Your task to perform on an android device: clear history in the chrome app Image 0: 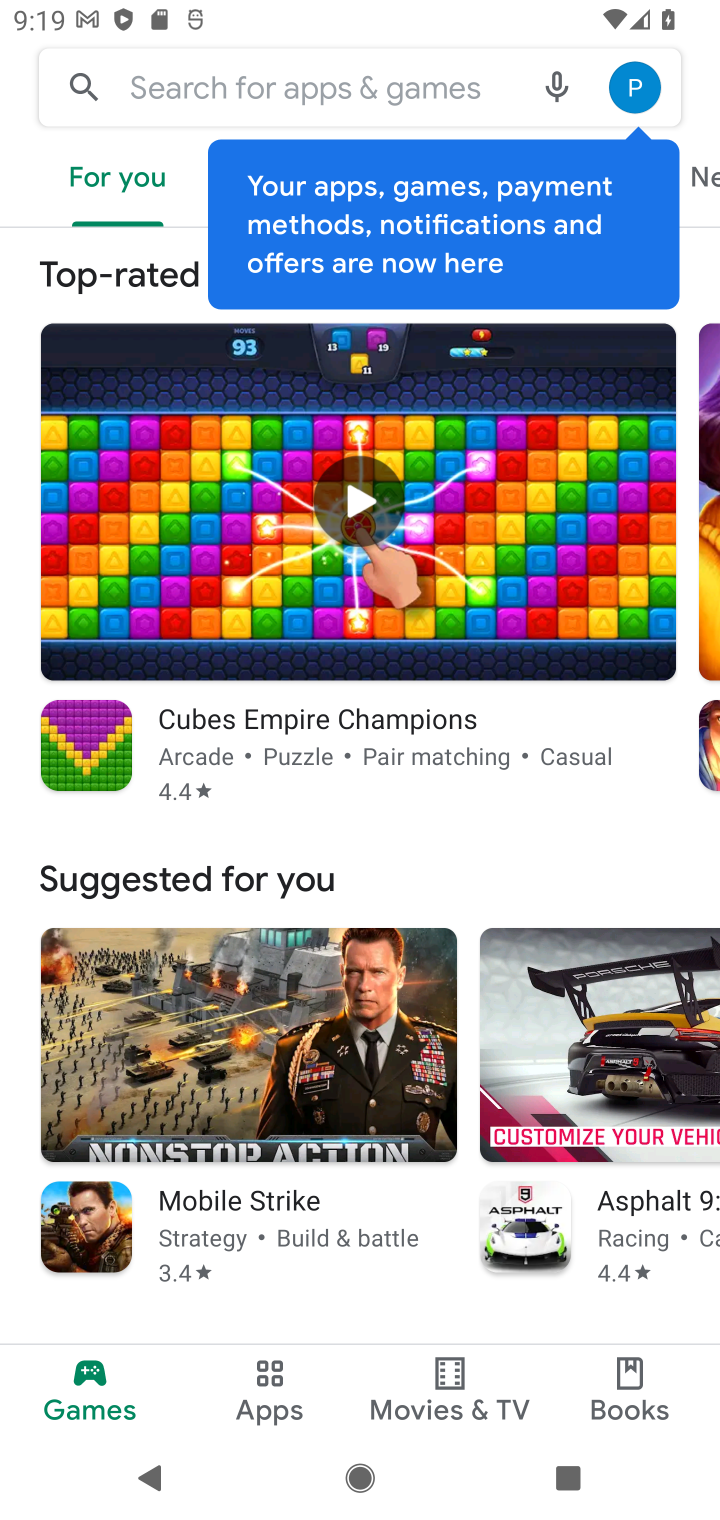
Step 0: press home button
Your task to perform on an android device: clear history in the chrome app Image 1: 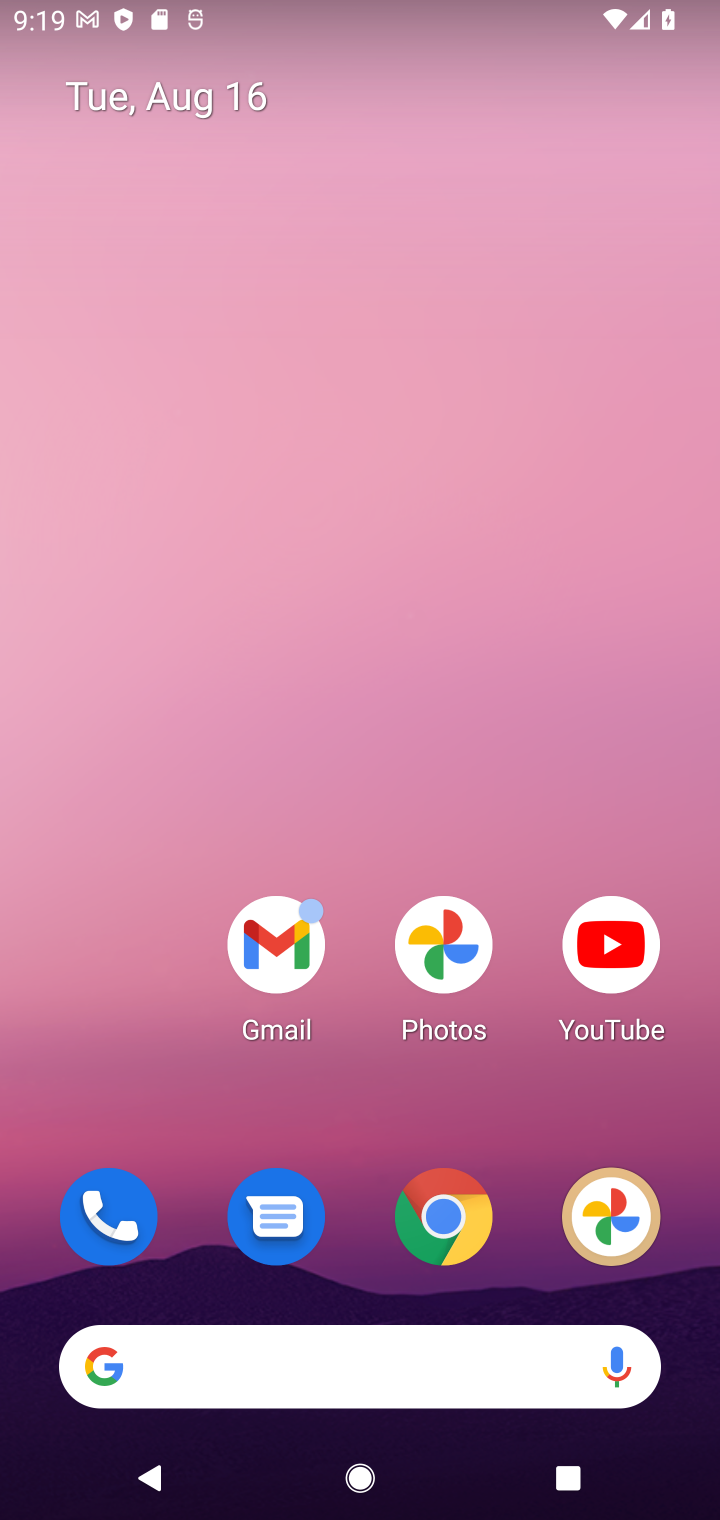
Step 1: click (452, 1217)
Your task to perform on an android device: clear history in the chrome app Image 2: 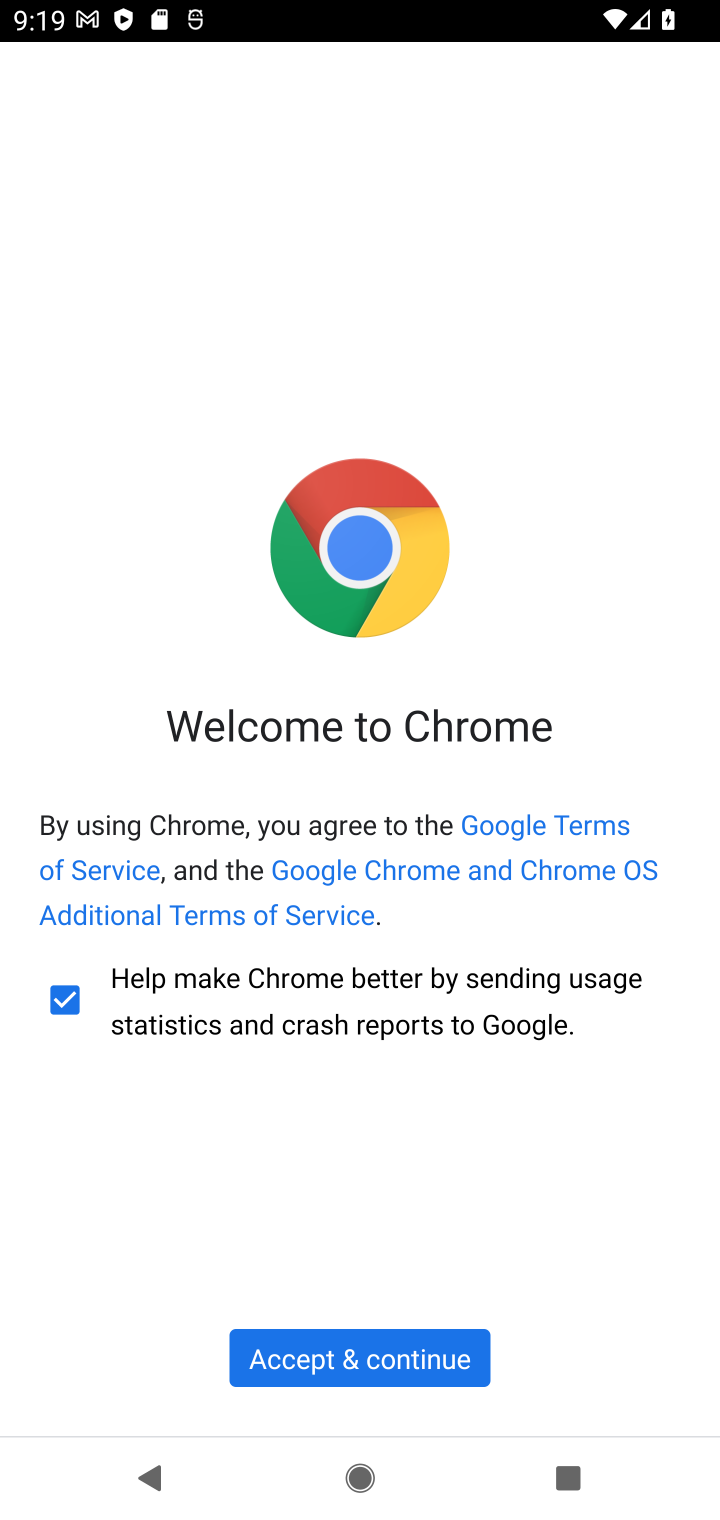
Step 2: click (387, 1368)
Your task to perform on an android device: clear history in the chrome app Image 3: 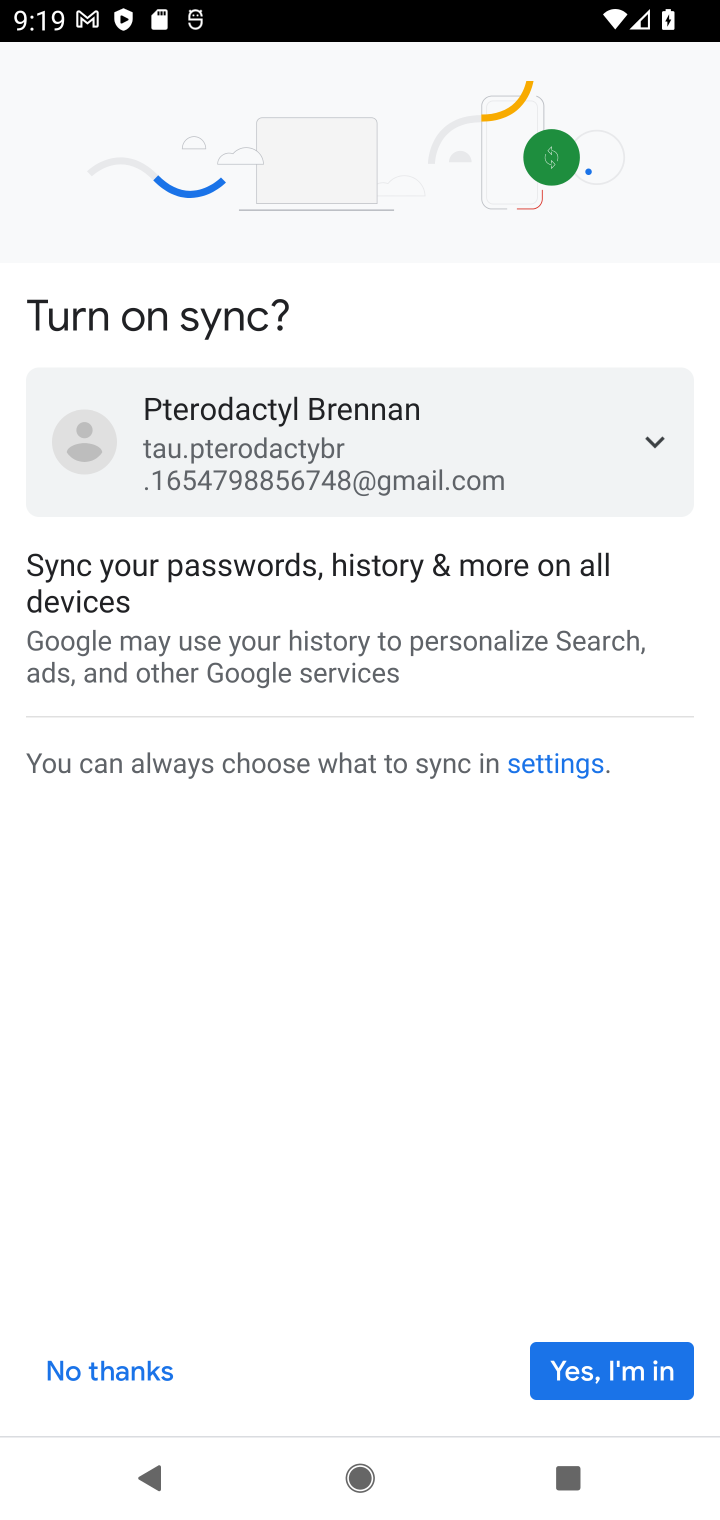
Step 3: click (578, 1362)
Your task to perform on an android device: clear history in the chrome app Image 4: 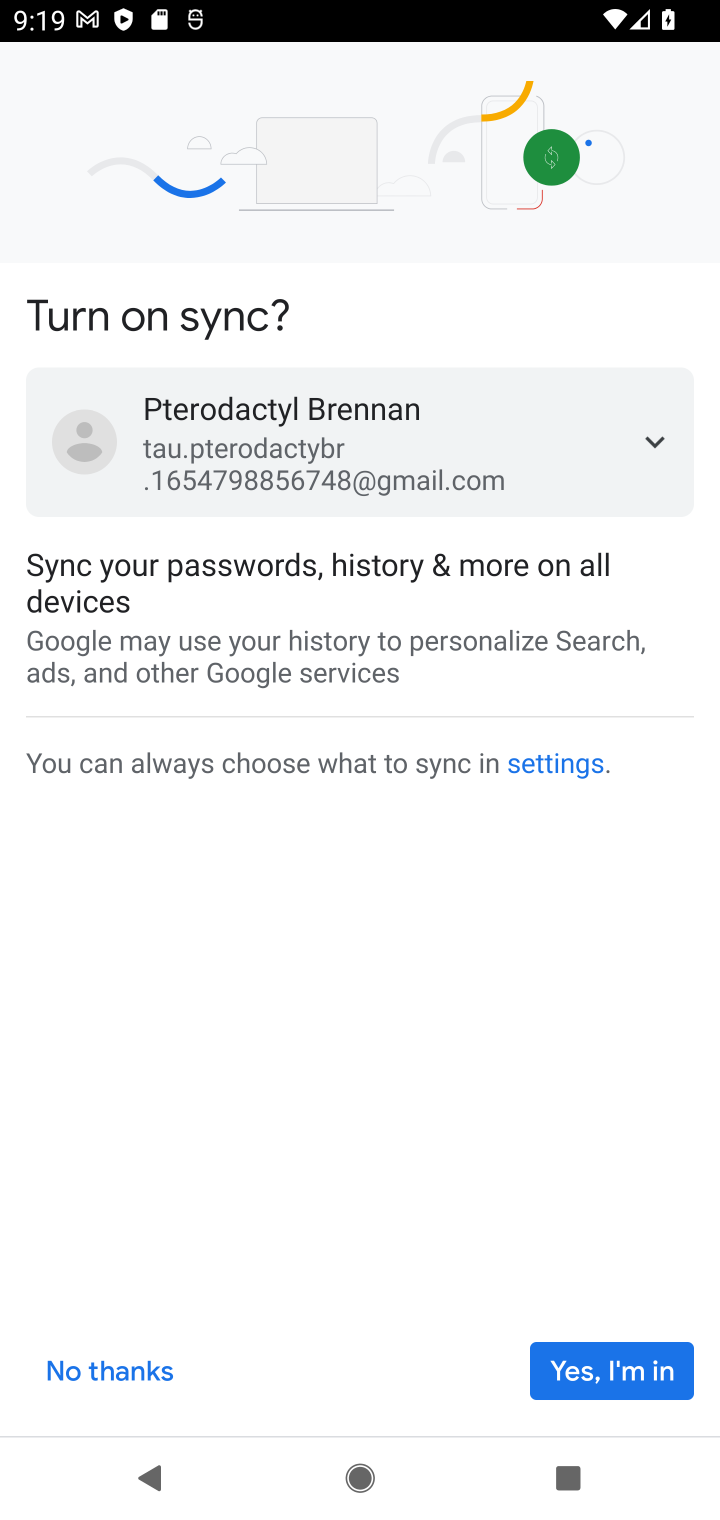
Step 4: click (617, 1375)
Your task to perform on an android device: clear history in the chrome app Image 5: 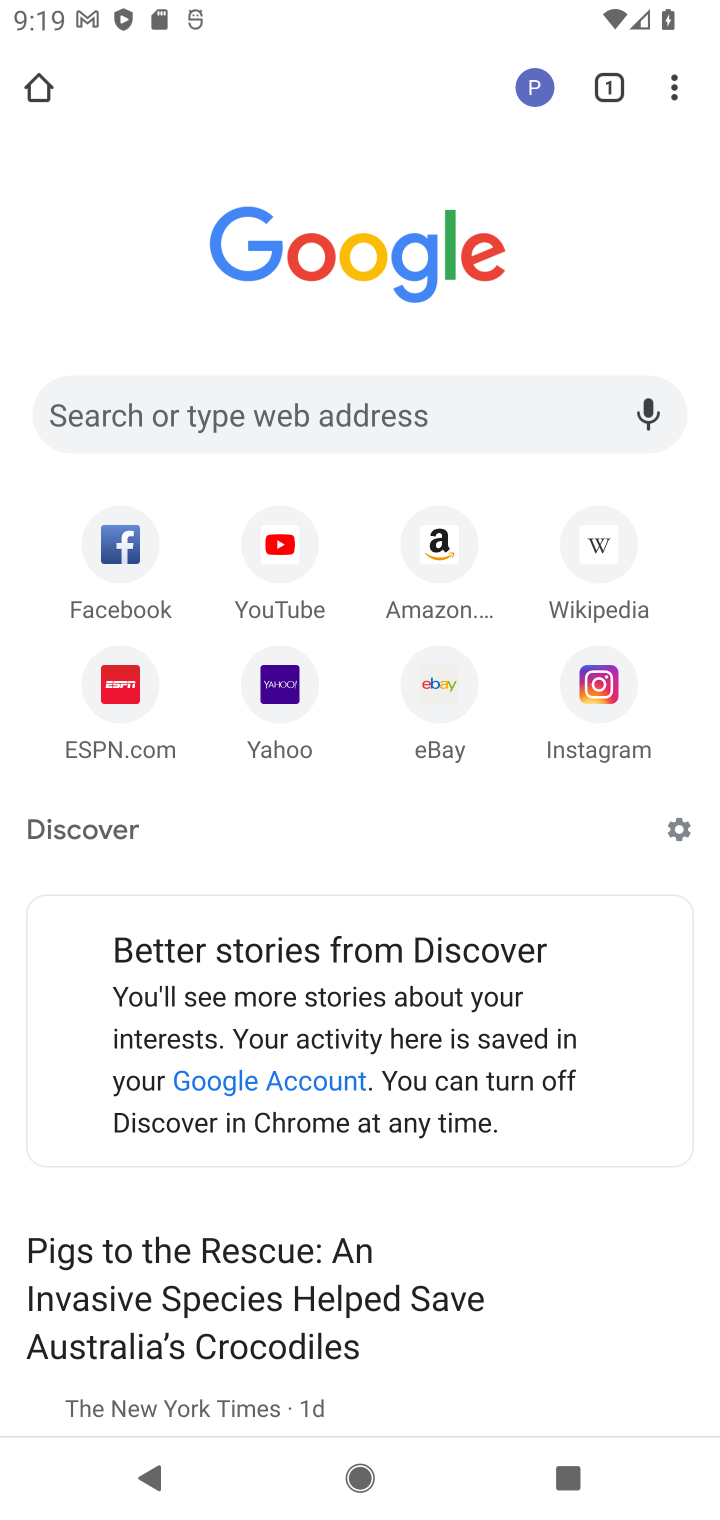
Step 5: click (677, 101)
Your task to perform on an android device: clear history in the chrome app Image 6: 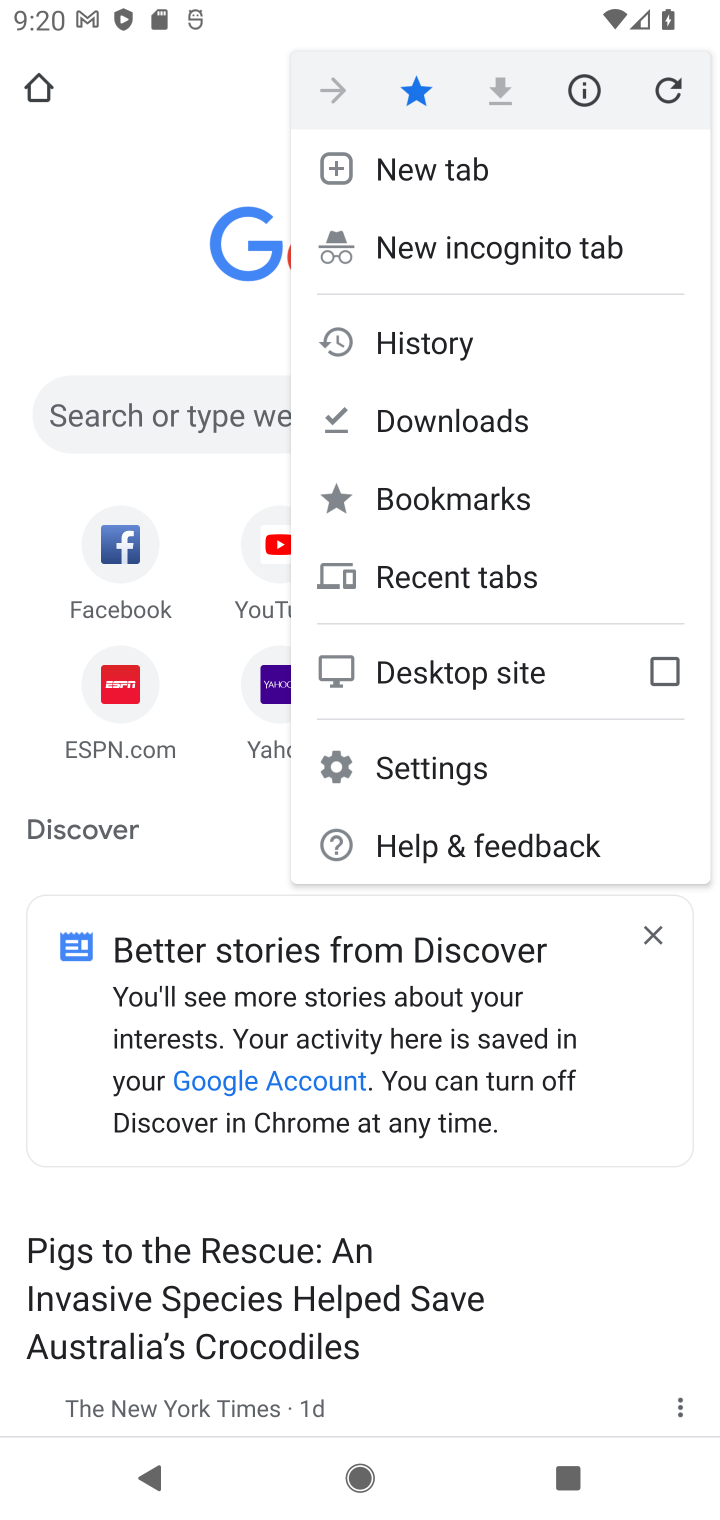
Step 6: click (422, 336)
Your task to perform on an android device: clear history in the chrome app Image 7: 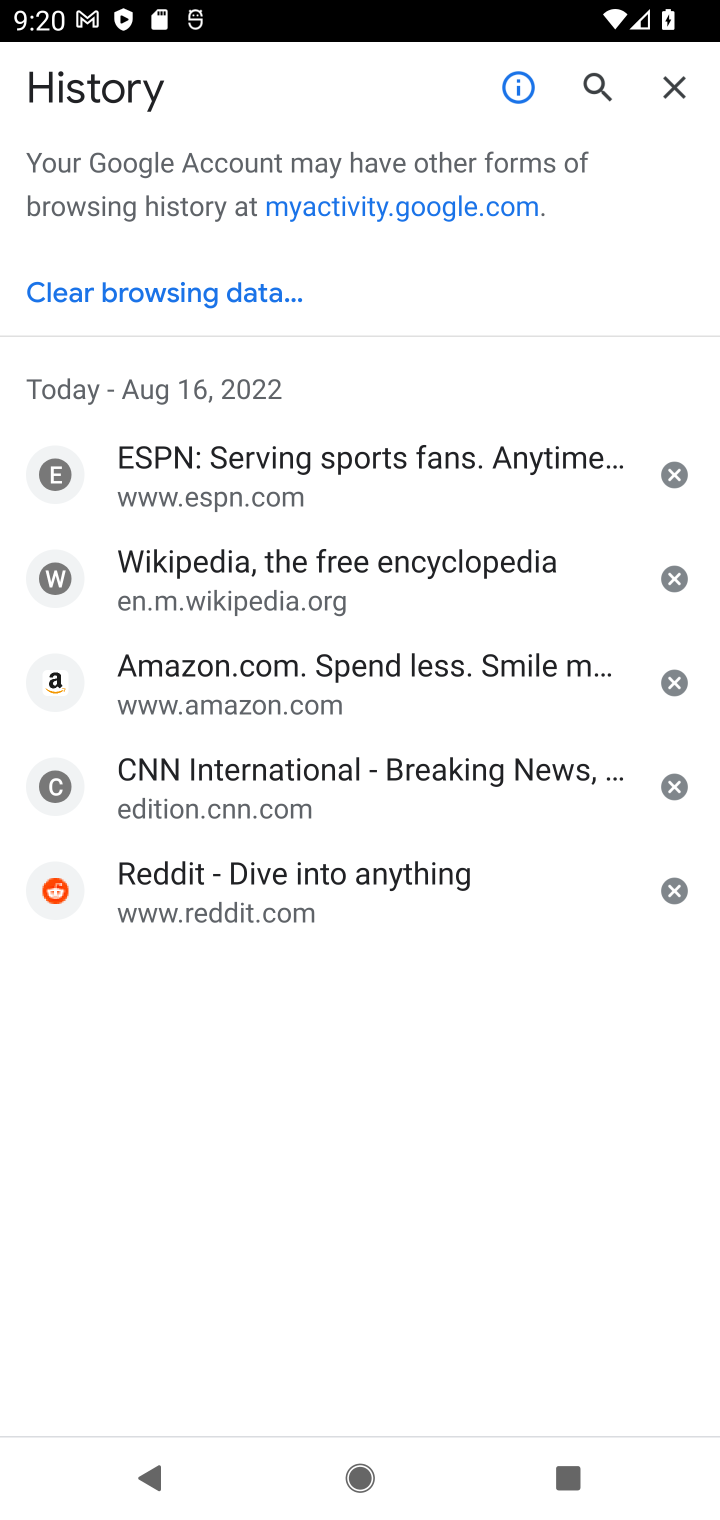
Step 7: click (193, 288)
Your task to perform on an android device: clear history in the chrome app Image 8: 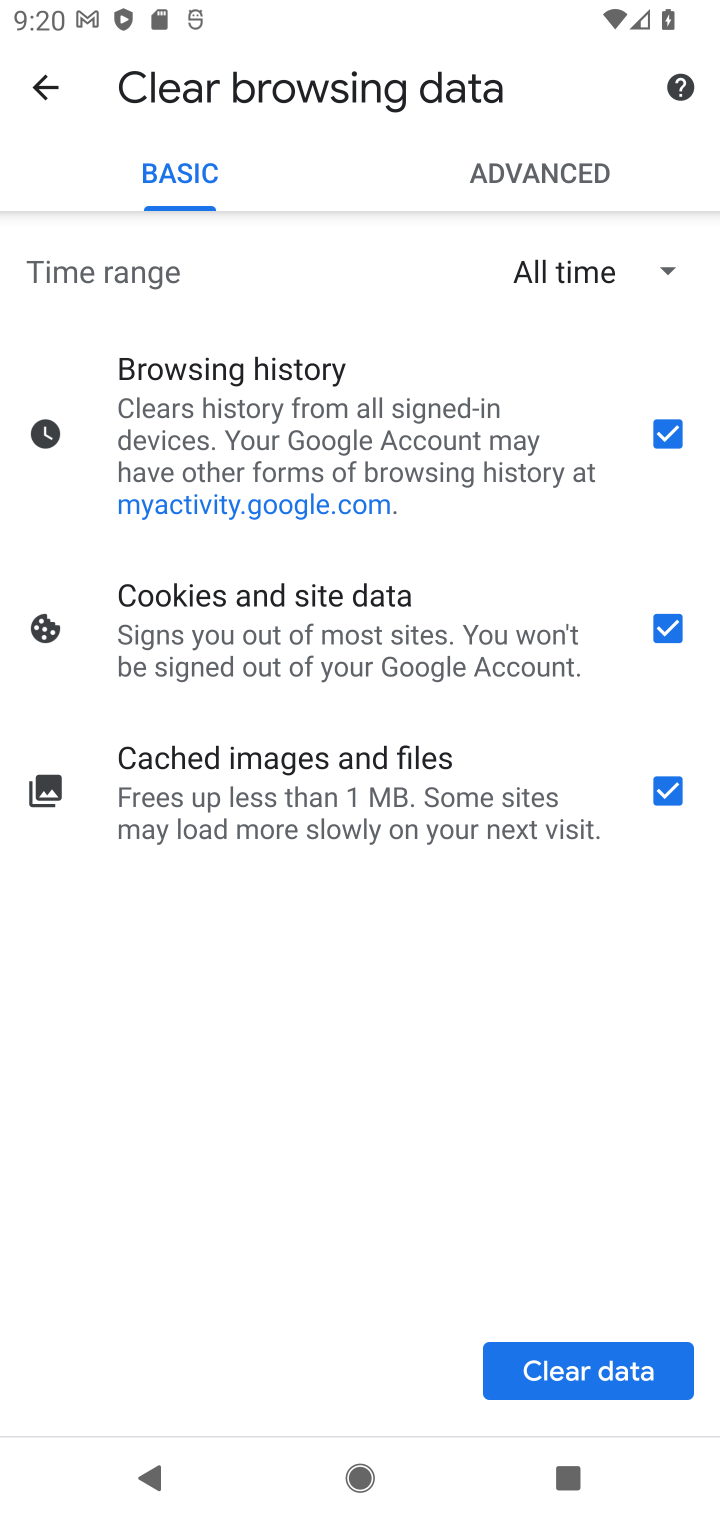
Step 8: click (667, 788)
Your task to perform on an android device: clear history in the chrome app Image 9: 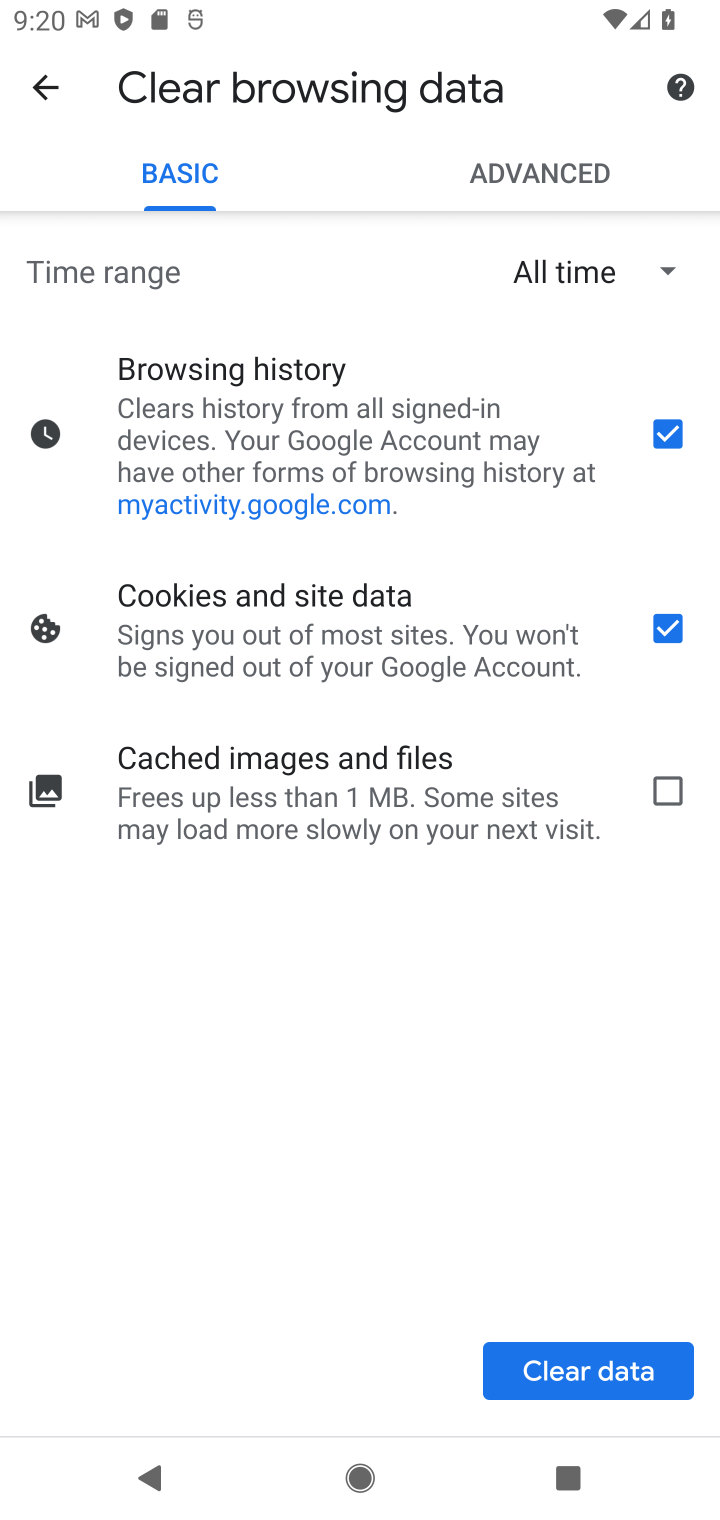
Step 9: click (670, 623)
Your task to perform on an android device: clear history in the chrome app Image 10: 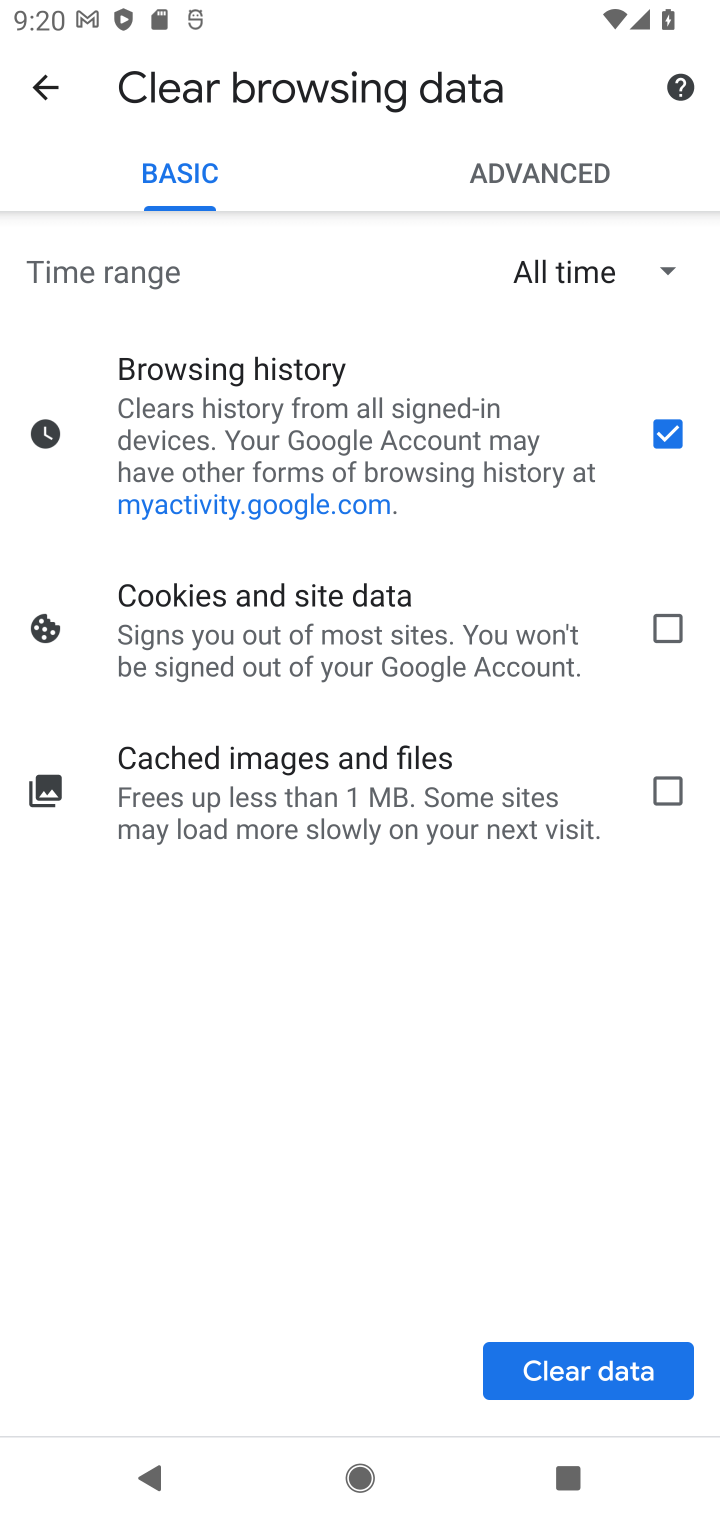
Step 10: click (567, 1369)
Your task to perform on an android device: clear history in the chrome app Image 11: 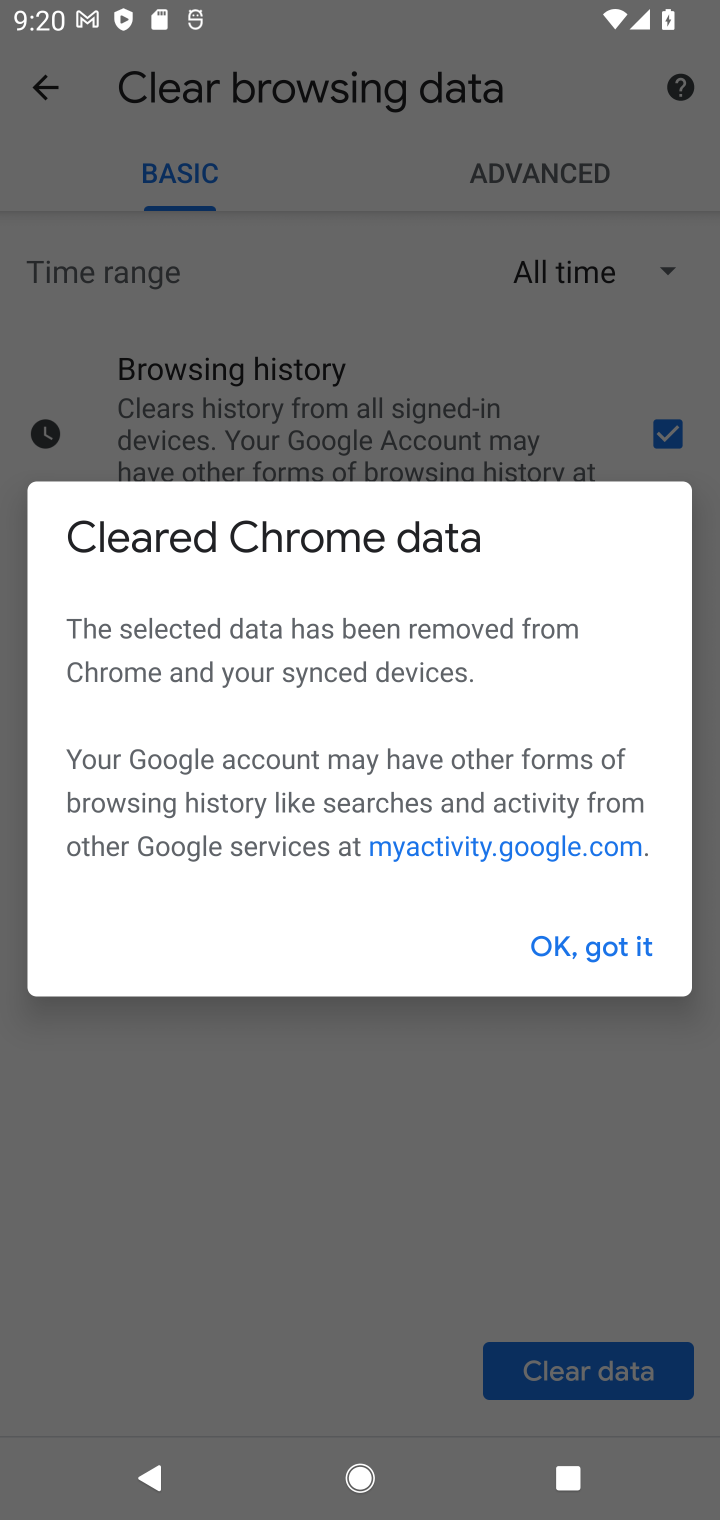
Step 11: click (624, 943)
Your task to perform on an android device: clear history in the chrome app Image 12: 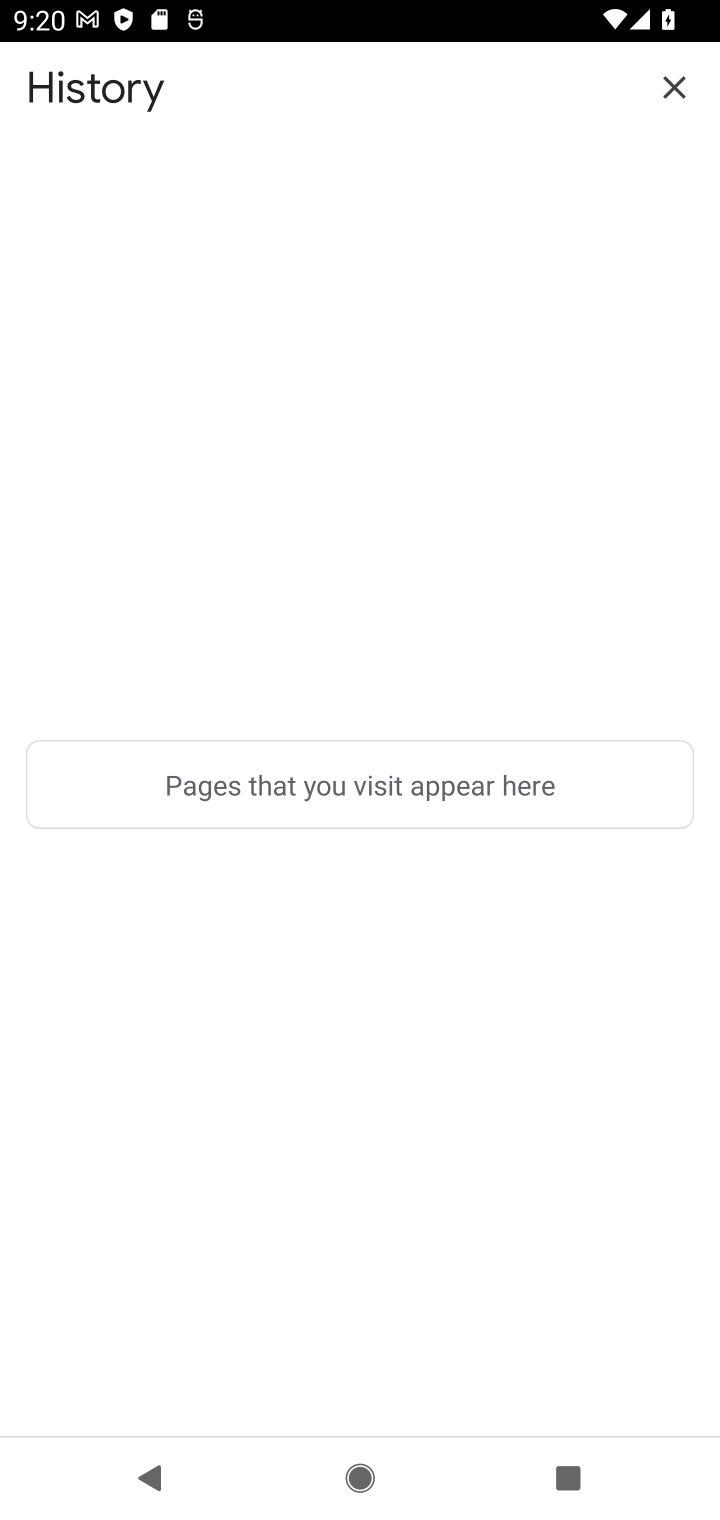
Step 12: task complete